Your task to perform on an android device: toggle pop-ups in chrome Image 0: 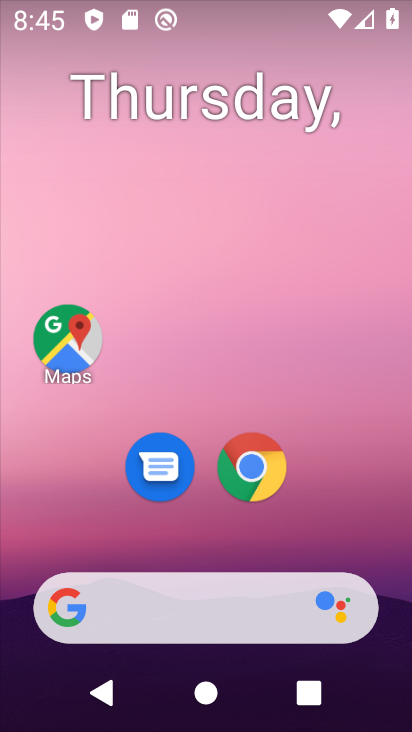
Step 0: drag from (318, 504) to (382, 39)
Your task to perform on an android device: toggle pop-ups in chrome Image 1: 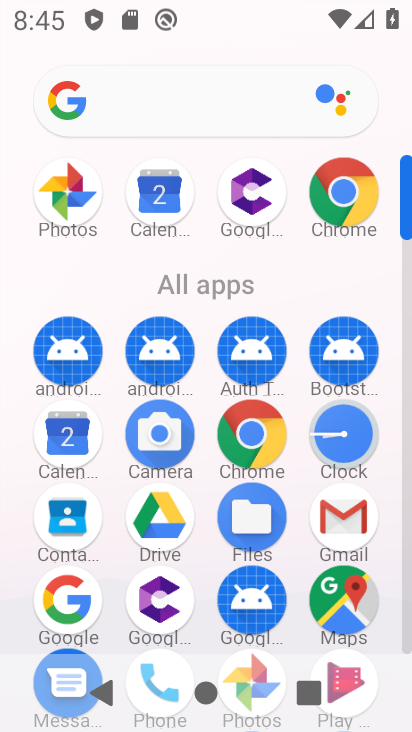
Step 1: click (350, 209)
Your task to perform on an android device: toggle pop-ups in chrome Image 2: 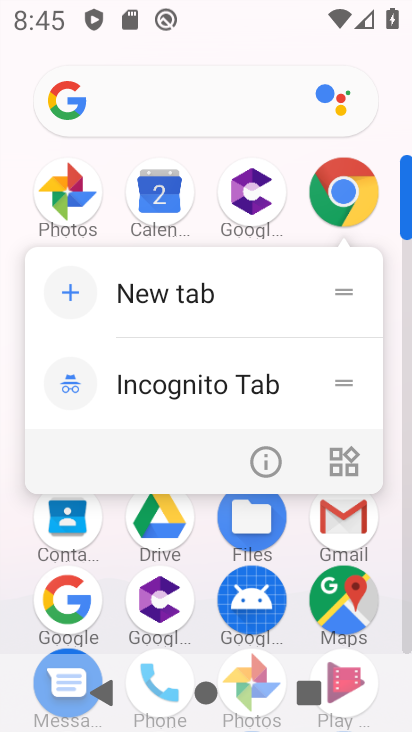
Step 2: click (350, 209)
Your task to perform on an android device: toggle pop-ups in chrome Image 3: 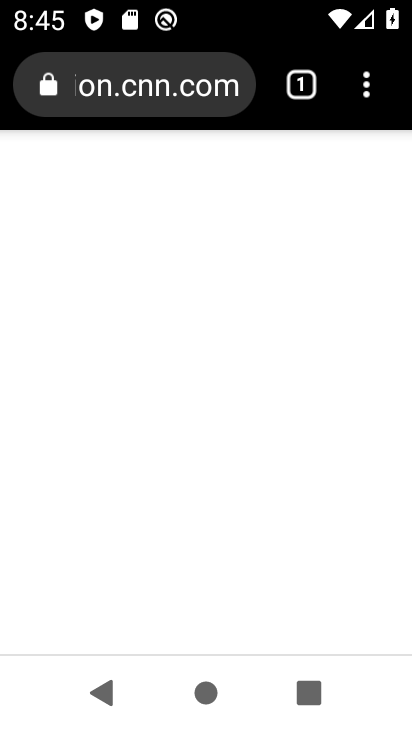
Step 3: drag from (363, 96) to (147, 517)
Your task to perform on an android device: toggle pop-ups in chrome Image 4: 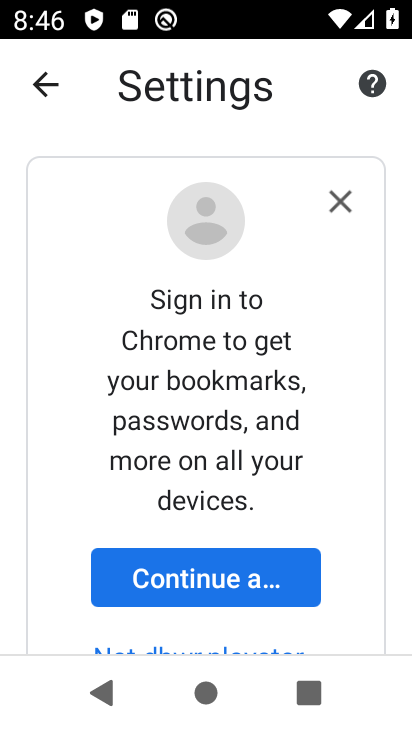
Step 4: drag from (179, 608) to (312, 231)
Your task to perform on an android device: toggle pop-ups in chrome Image 5: 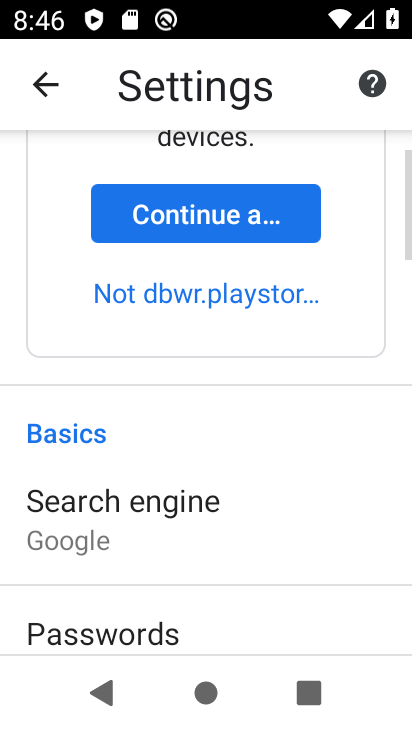
Step 5: drag from (248, 598) to (318, 202)
Your task to perform on an android device: toggle pop-ups in chrome Image 6: 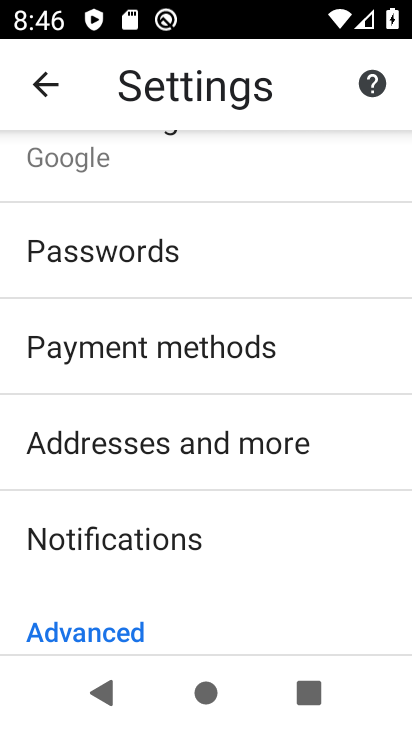
Step 6: drag from (190, 571) to (280, 148)
Your task to perform on an android device: toggle pop-ups in chrome Image 7: 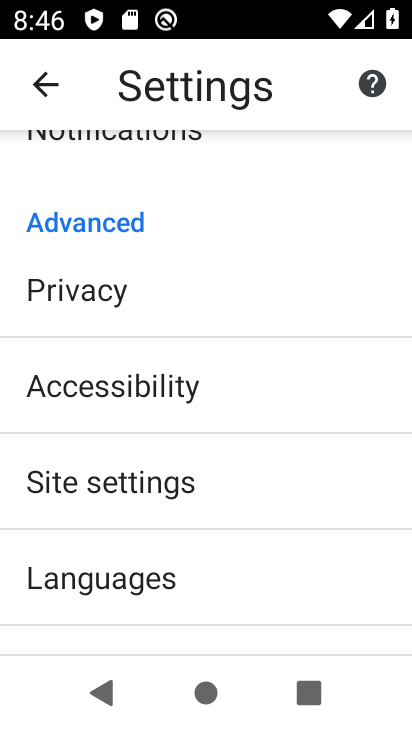
Step 7: click (160, 508)
Your task to perform on an android device: toggle pop-ups in chrome Image 8: 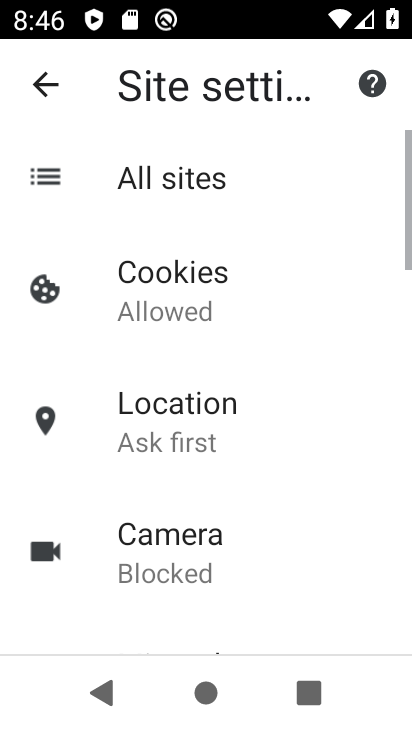
Step 8: drag from (160, 508) to (197, 264)
Your task to perform on an android device: toggle pop-ups in chrome Image 9: 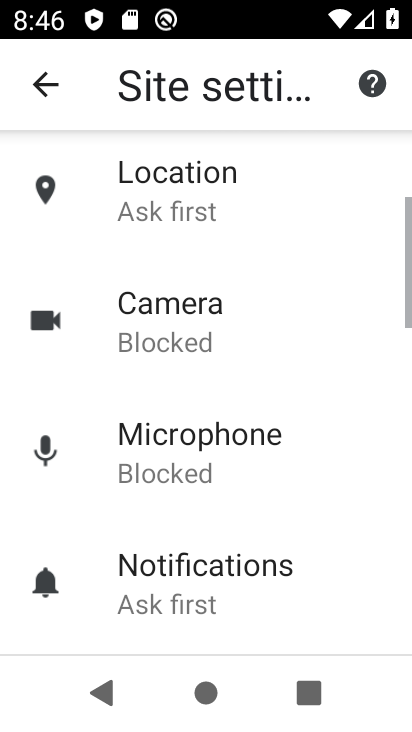
Step 9: drag from (213, 539) to (239, 211)
Your task to perform on an android device: toggle pop-ups in chrome Image 10: 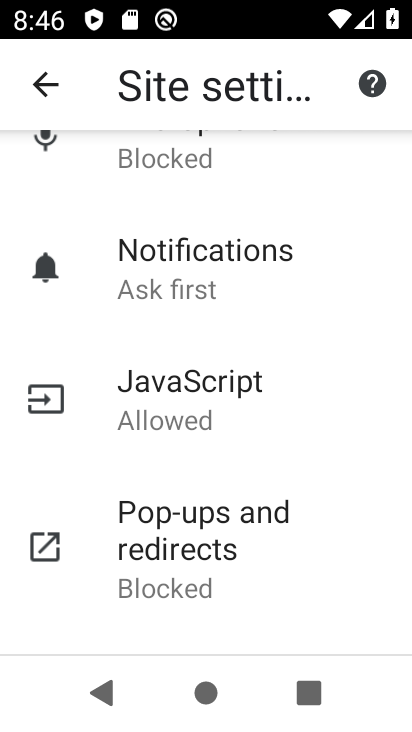
Step 10: click (212, 536)
Your task to perform on an android device: toggle pop-ups in chrome Image 11: 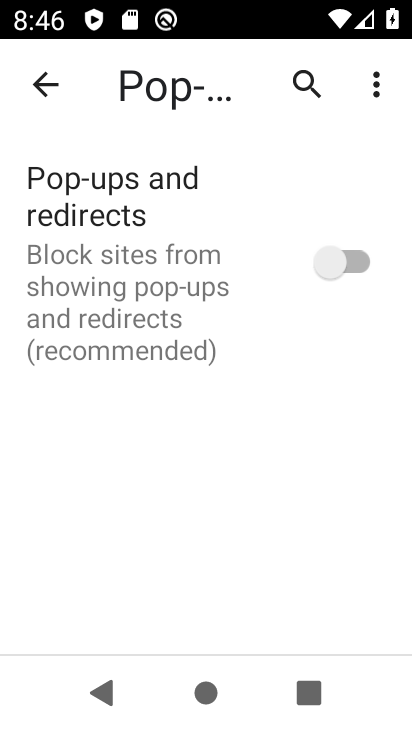
Step 11: click (340, 256)
Your task to perform on an android device: toggle pop-ups in chrome Image 12: 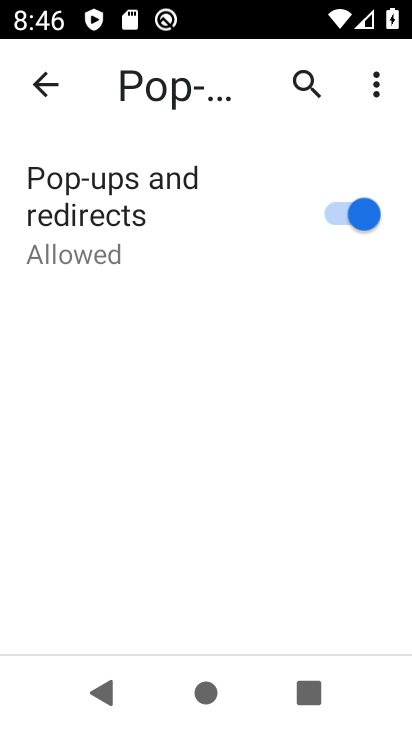
Step 12: task complete